Your task to perform on an android device: Check the weather Image 0: 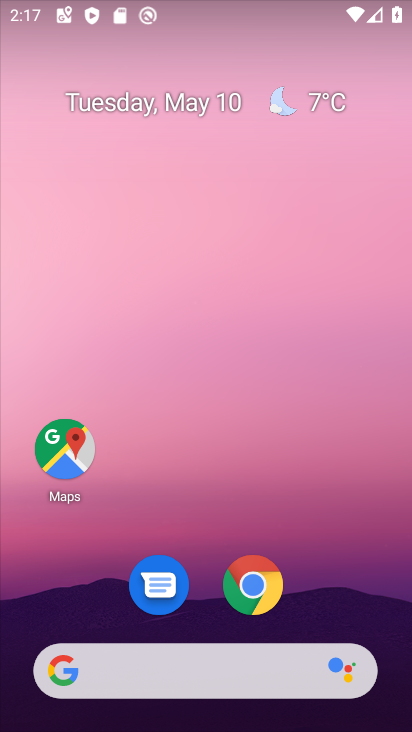
Step 0: click (326, 96)
Your task to perform on an android device: Check the weather Image 1: 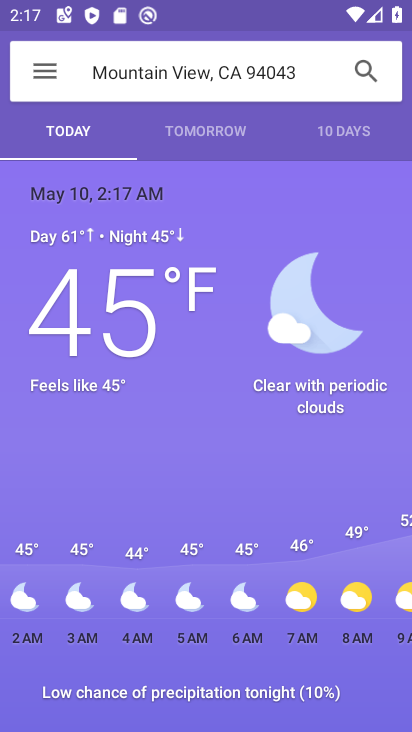
Step 1: task complete